Your task to perform on an android device: install app "HBO Max: Stream TV & Movies" Image 0: 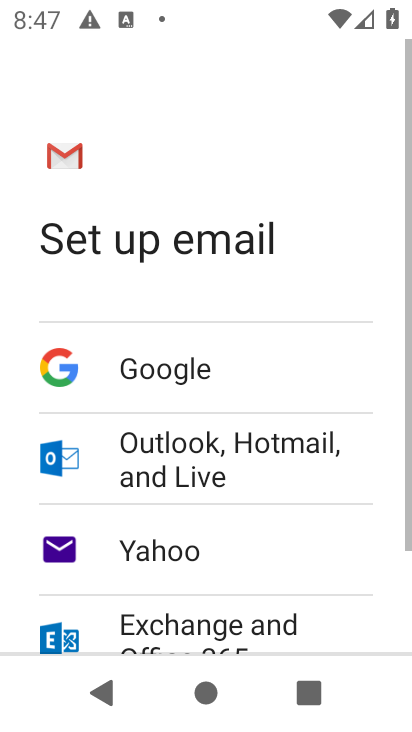
Step 0: press home button
Your task to perform on an android device: install app "HBO Max: Stream TV & Movies" Image 1: 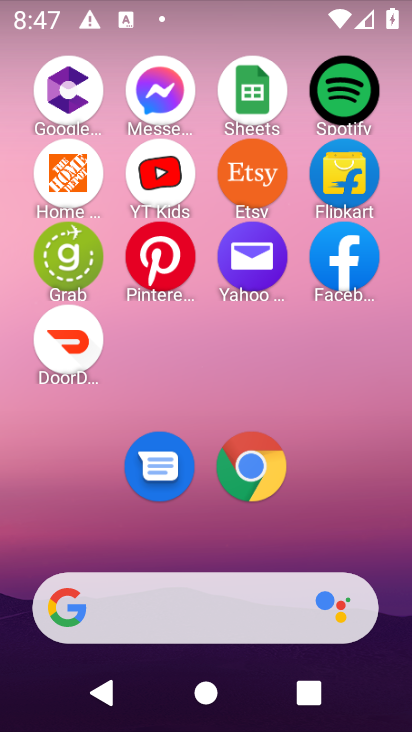
Step 1: drag from (231, 480) to (276, 26)
Your task to perform on an android device: install app "HBO Max: Stream TV & Movies" Image 2: 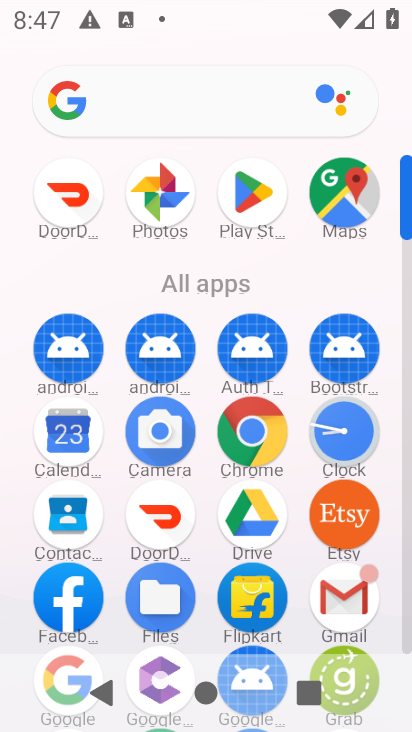
Step 2: click (247, 189)
Your task to perform on an android device: install app "HBO Max: Stream TV & Movies" Image 3: 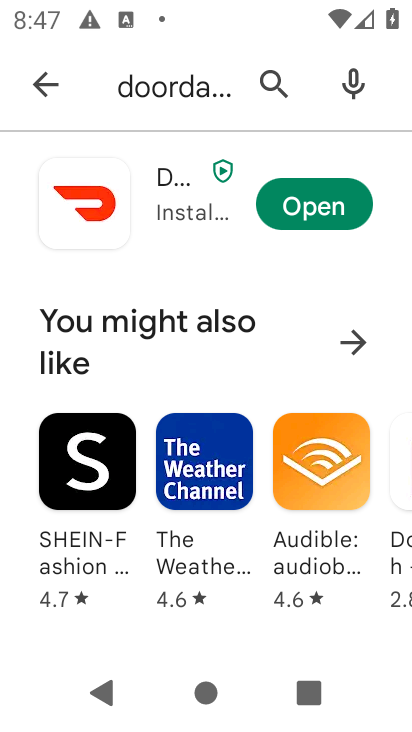
Step 3: click (281, 79)
Your task to perform on an android device: install app "HBO Max: Stream TV & Movies" Image 4: 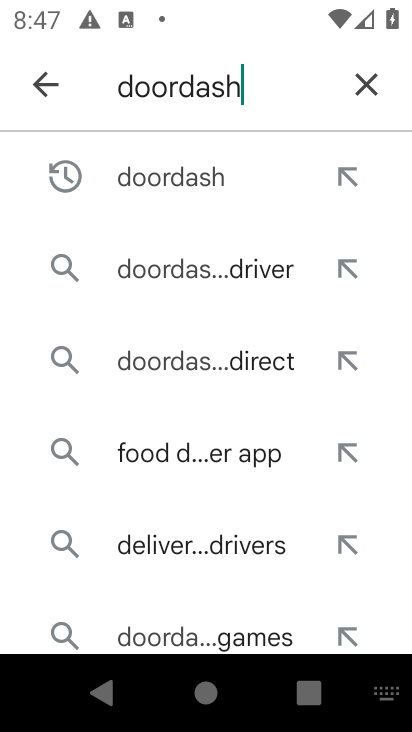
Step 4: click (354, 69)
Your task to perform on an android device: install app "HBO Max: Stream TV & Movies" Image 5: 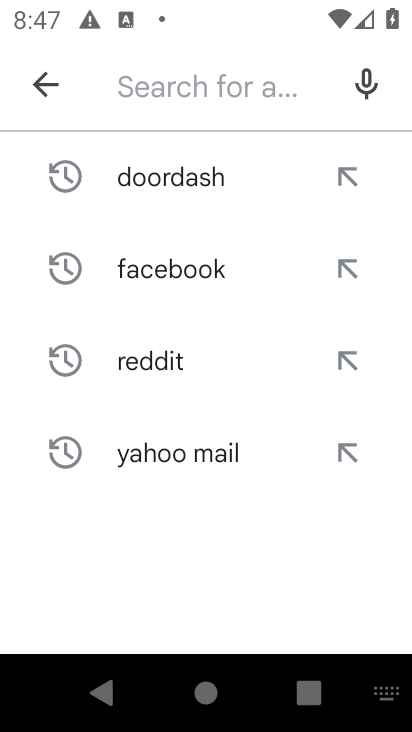
Step 5: type "hbo"
Your task to perform on an android device: install app "HBO Max: Stream TV & Movies" Image 6: 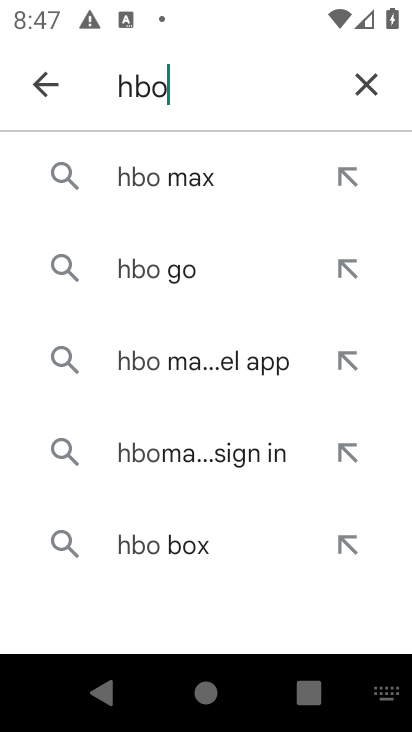
Step 6: click (198, 187)
Your task to perform on an android device: install app "HBO Max: Stream TV & Movies" Image 7: 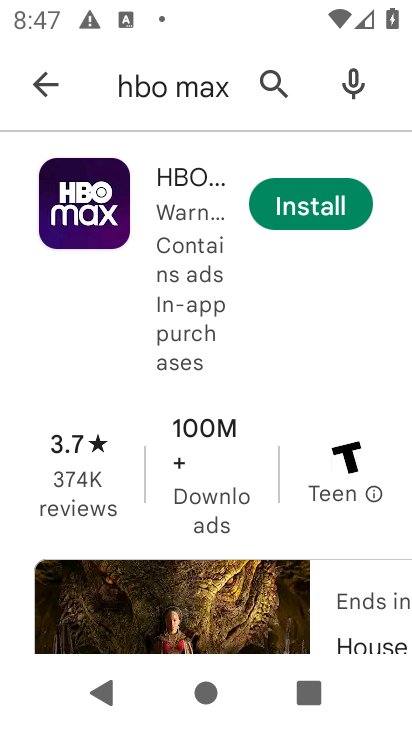
Step 7: click (311, 217)
Your task to perform on an android device: install app "HBO Max: Stream TV & Movies" Image 8: 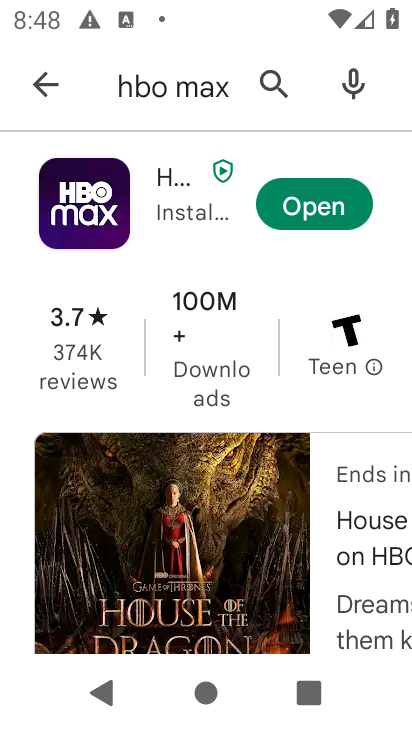
Step 8: task complete